Your task to perform on an android device: Open Google Chrome and open the bookmarks view Image 0: 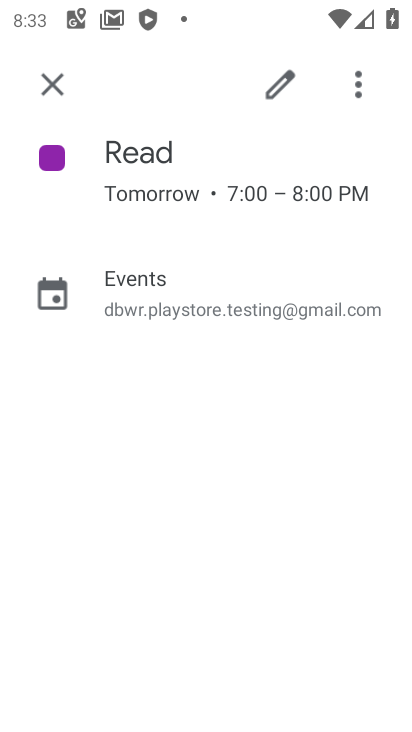
Step 0: press home button
Your task to perform on an android device: Open Google Chrome and open the bookmarks view Image 1: 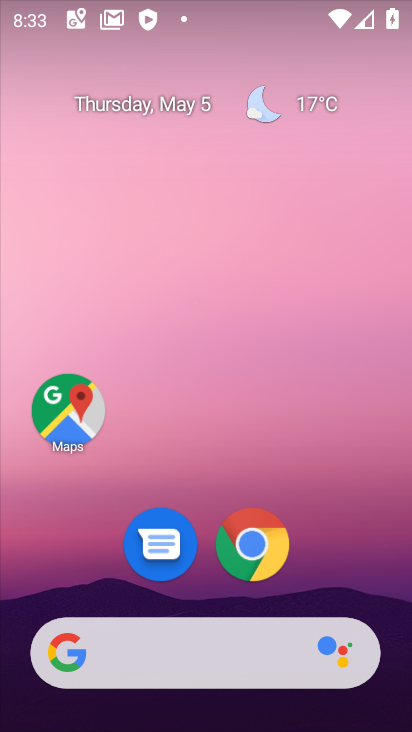
Step 1: drag from (385, 631) to (312, 40)
Your task to perform on an android device: Open Google Chrome and open the bookmarks view Image 2: 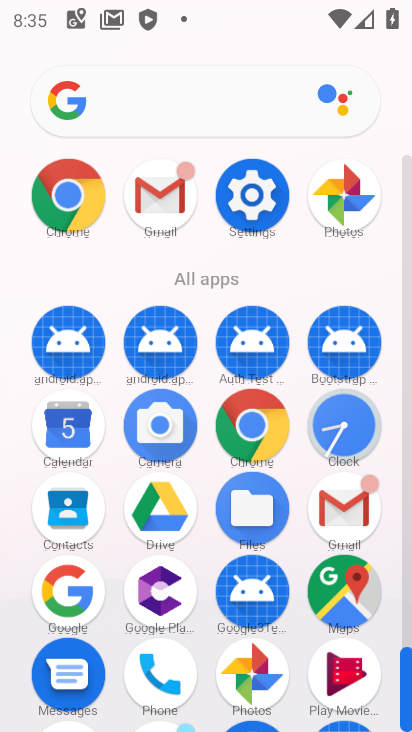
Step 2: click (245, 434)
Your task to perform on an android device: Open Google Chrome and open the bookmarks view Image 3: 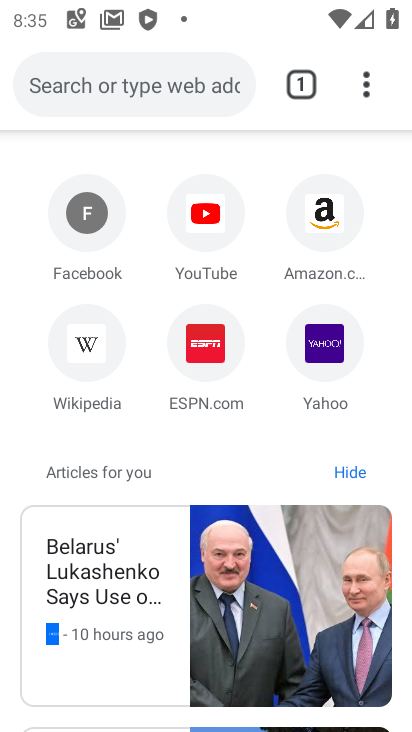
Step 3: click (368, 83)
Your task to perform on an android device: Open Google Chrome and open the bookmarks view Image 4: 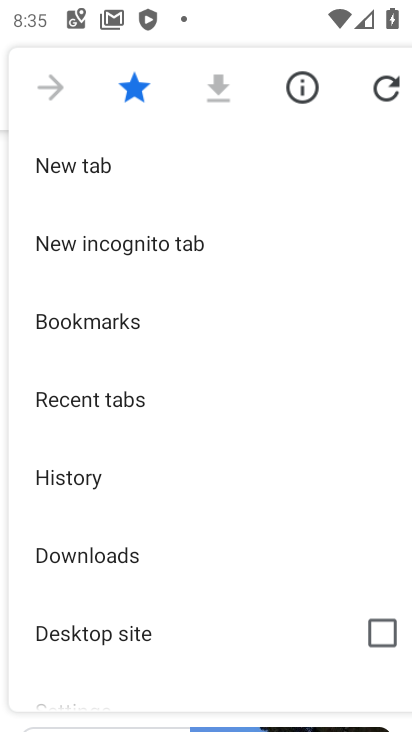
Step 4: click (174, 316)
Your task to perform on an android device: Open Google Chrome and open the bookmarks view Image 5: 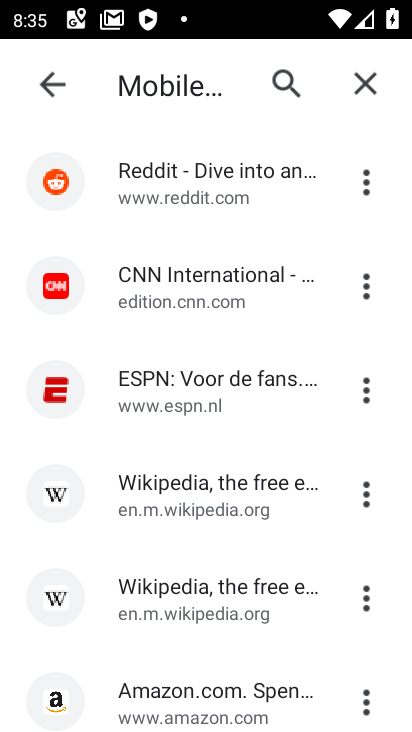
Step 5: task complete